Your task to perform on an android device: turn off location history Image 0: 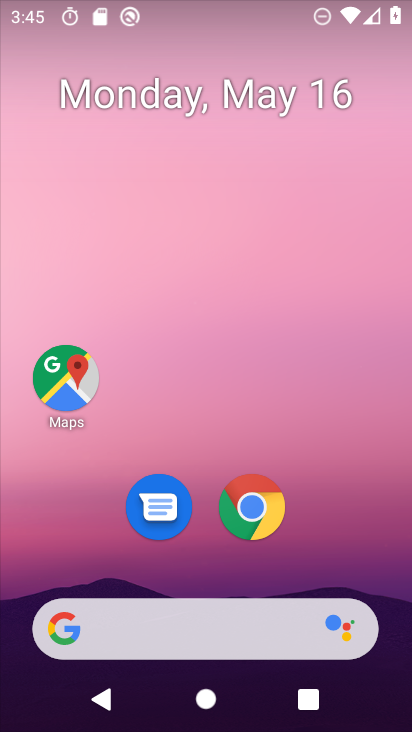
Step 0: drag from (354, 538) to (280, 2)
Your task to perform on an android device: turn off location history Image 1: 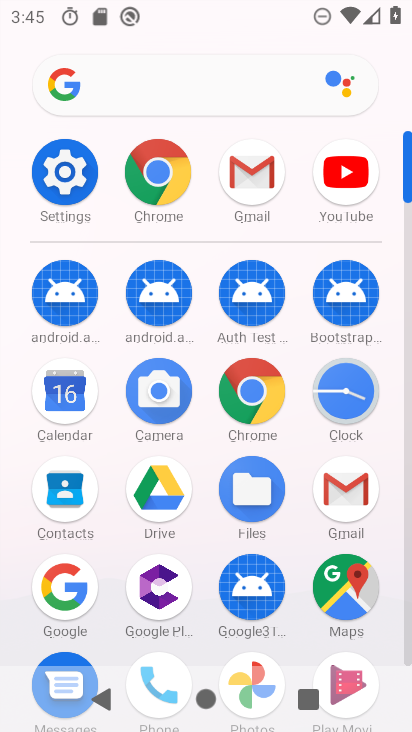
Step 1: click (76, 185)
Your task to perform on an android device: turn off location history Image 2: 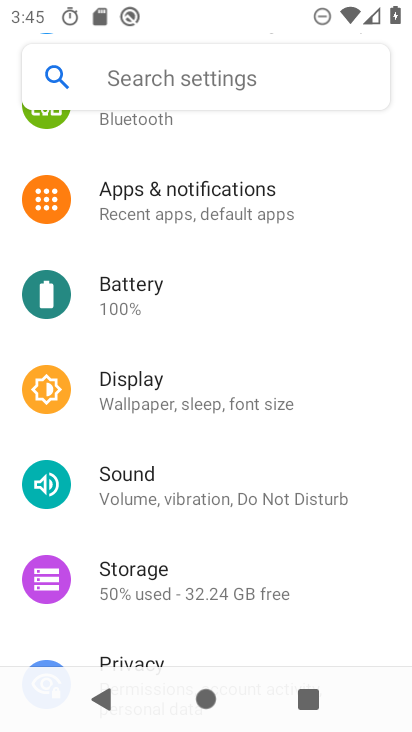
Step 2: drag from (260, 263) to (205, 594)
Your task to perform on an android device: turn off location history Image 3: 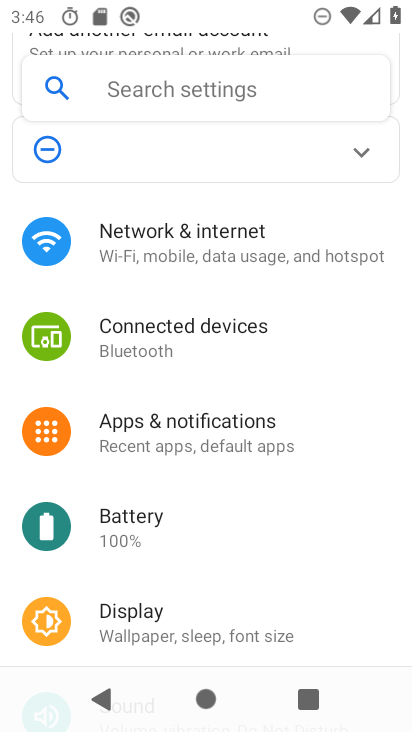
Step 3: drag from (255, 566) to (336, 181)
Your task to perform on an android device: turn off location history Image 4: 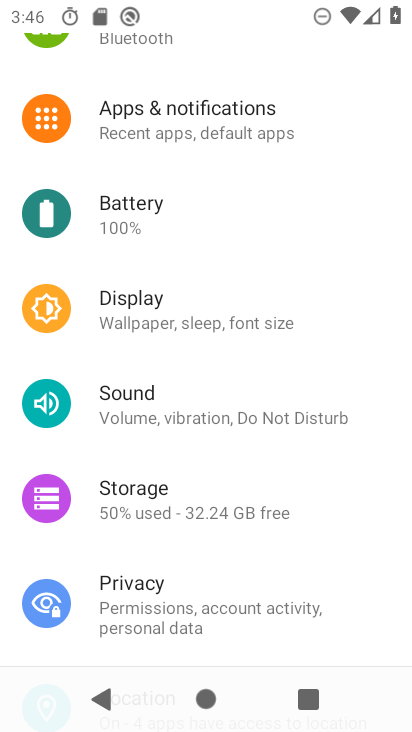
Step 4: drag from (234, 581) to (285, 239)
Your task to perform on an android device: turn off location history Image 5: 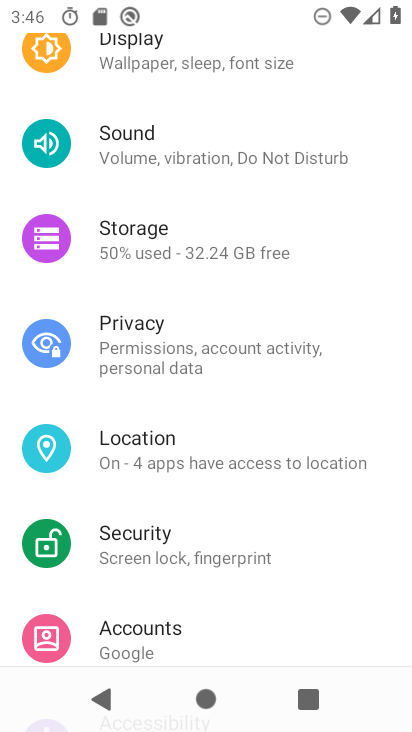
Step 5: click (207, 448)
Your task to perform on an android device: turn off location history Image 6: 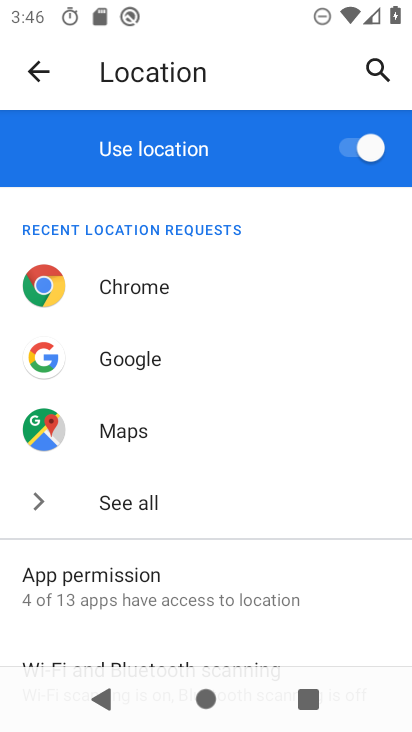
Step 6: drag from (218, 601) to (284, 130)
Your task to perform on an android device: turn off location history Image 7: 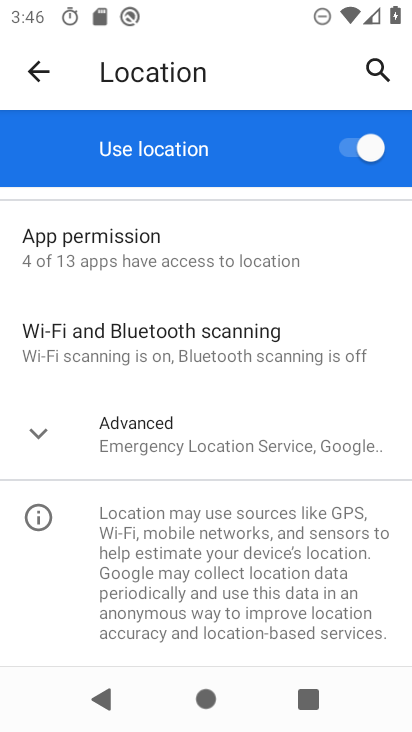
Step 7: click (234, 466)
Your task to perform on an android device: turn off location history Image 8: 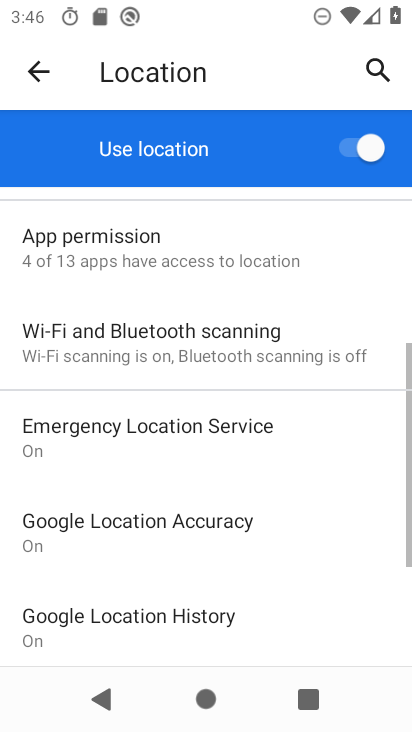
Step 8: drag from (220, 601) to (318, 253)
Your task to perform on an android device: turn off location history Image 9: 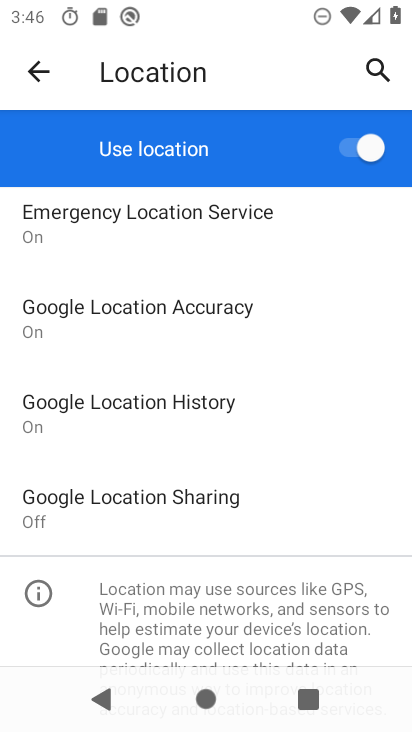
Step 9: click (195, 397)
Your task to perform on an android device: turn off location history Image 10: 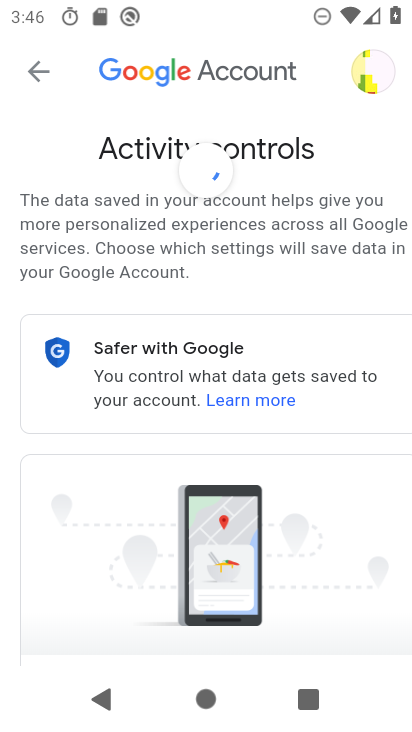
Step 10: drag from (241, 554) to (271, 141)
Your task to perform on an android device: turn off location history Image 11: 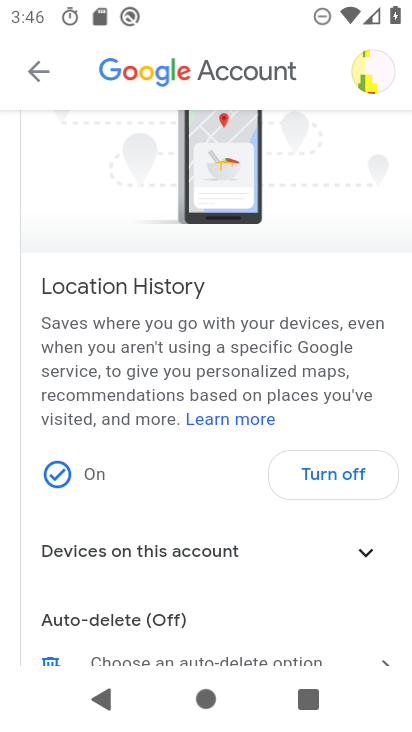
Step 11: click (336, 487)
Your task to perform on an android device: turn off location history Image 12: 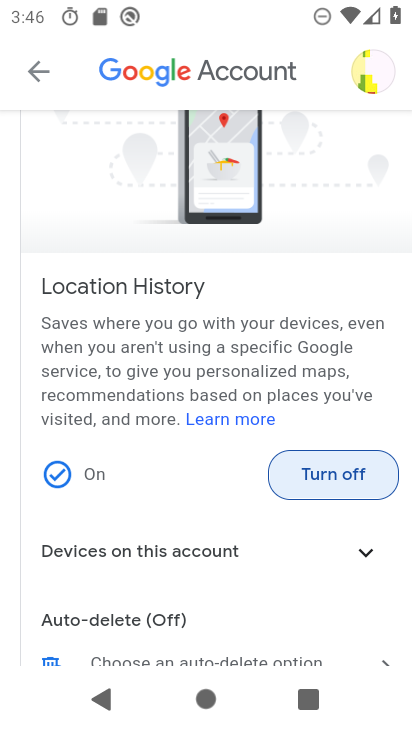
Step 12: click (337, 479)
Your task to perform on an android device: turn off location history Image 13: 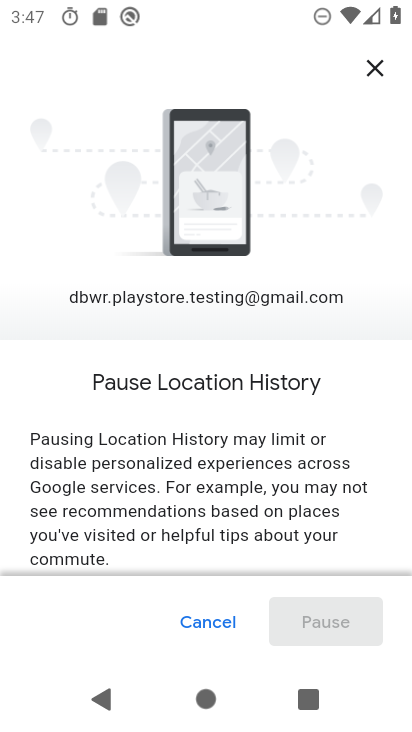
Step 13: drag from (320, 520) to (351, 74)
Your task to perform on an android device: turn off location history Image 14: 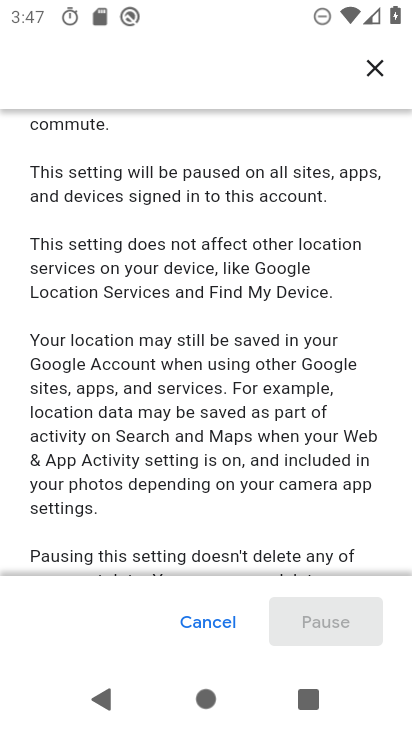
Step 14: drag from (278, 435) to (279, 84)
Your task to perform on an android device: turn off location history Image 15: 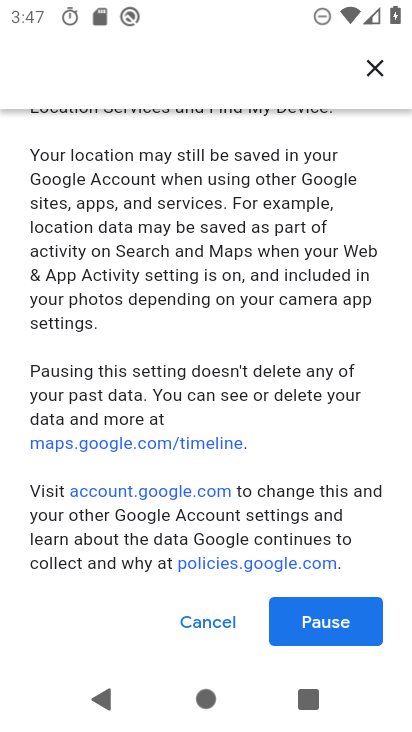
Step 15: drag from (285, 426) to (312, 196)
Your task to perform on an android device: turn off location history Image 16: 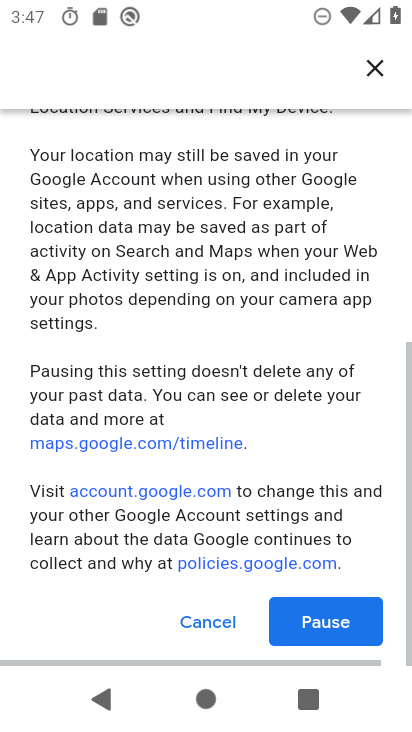
Step 16: click (313, 623)
Your task to perform on an android device: turn off location history Image 17: 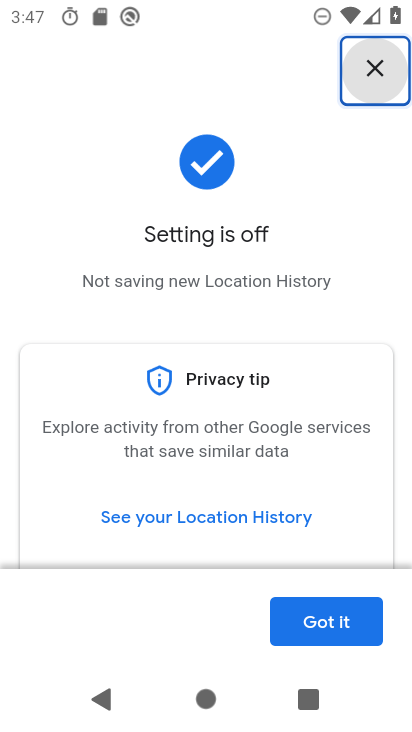
Step 17: click (313, 623)
Your task to perform on an android device: turn off location history Image 18: 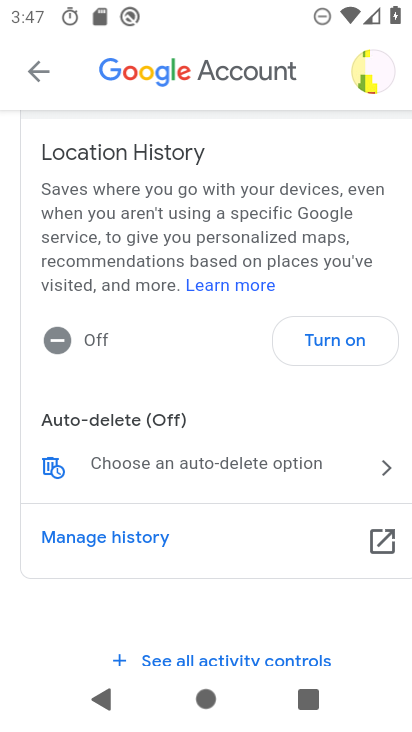
Step 18: task complete